Your task to perform on an android device: Go to Amazon Image 0: 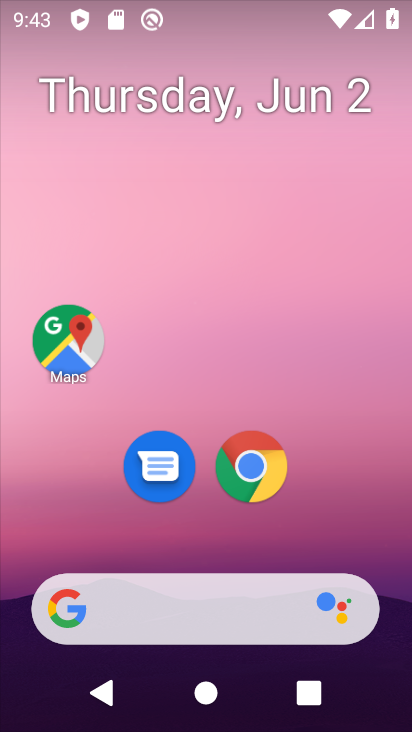
Step 0: click (273, 486)
Your task to perform on an android device: Go to Amazon Image 1: 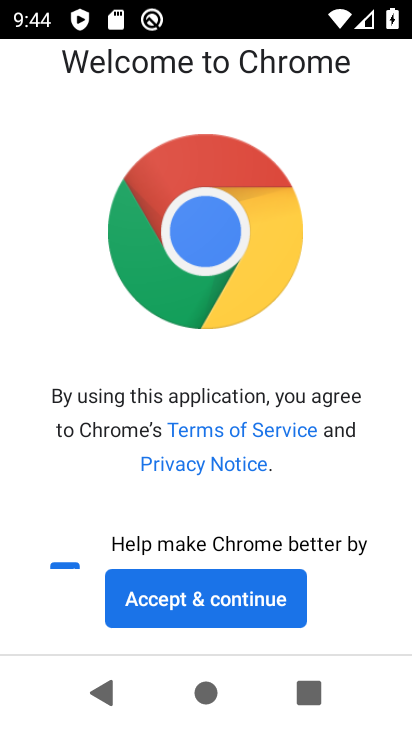
Step 1: click (280, 608)
Your task to perform on an android device: Go to Amazon Image 2: 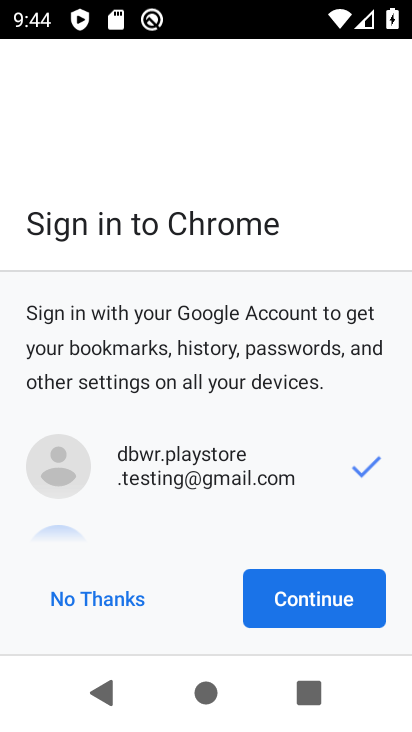
Step 2: click (326, 609)
Your task to perform on an android device: Go to Amazon Image 3: 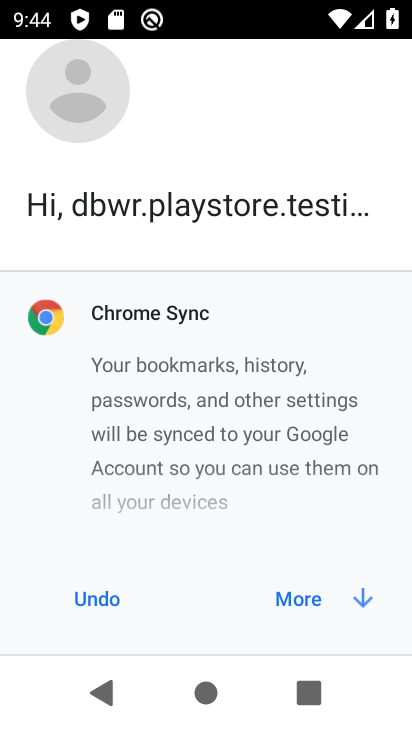
Step 3: click (326, 609)
Your task to perform on an android device: Go to Amazon Image 4: 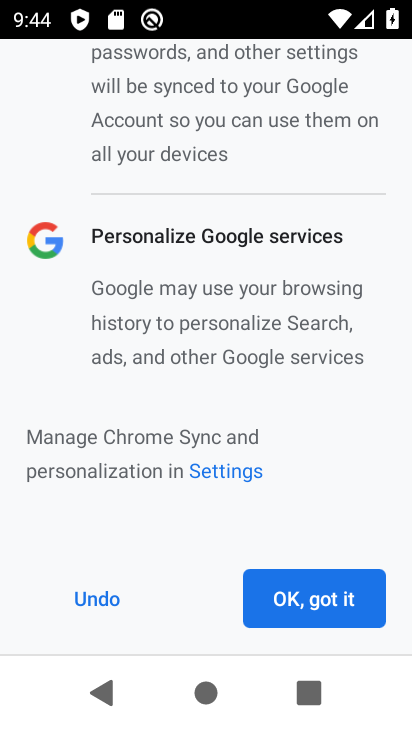
Step 4: click (326, 609)
Your task to perform on an android device: Go to Amazon Image 5: 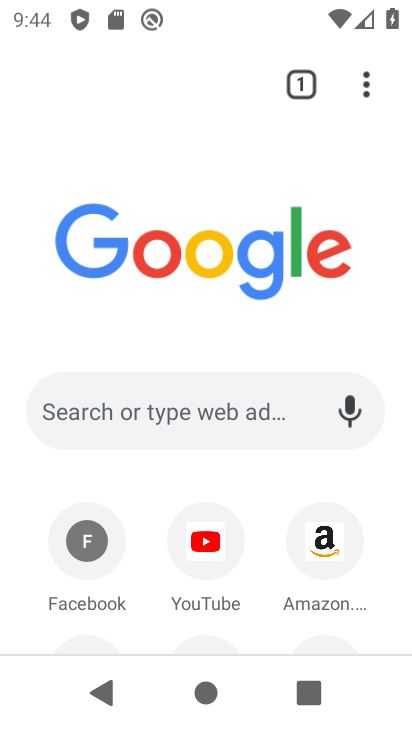
Step 5: click (327, 551)
Your task to perform on an android device: Go to Amazon Image 6: 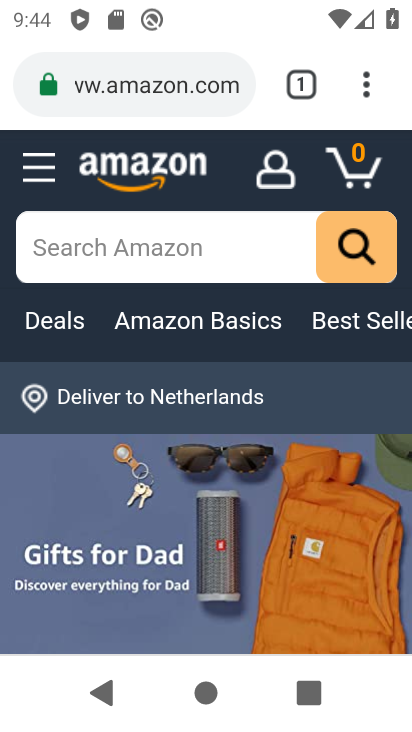
Step 6: task complete